Your task to perform on an android device: Open the stopwatch Image 0: 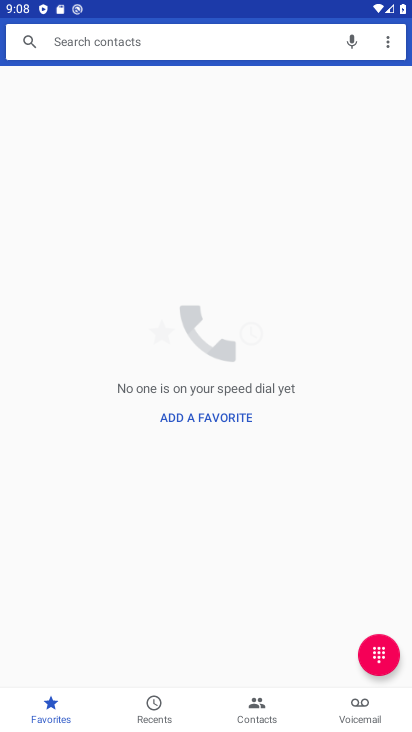
Step 0: press back button
Your task to perform on an android device: Open the stopwatch Image 1: 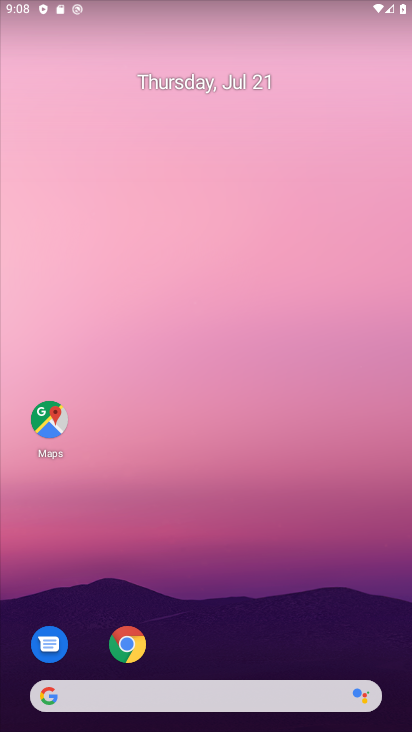
Step 1: drag from (275, 567) to (254, 256)
Your task to perform on an android device: Open the stopwatch Image 2: 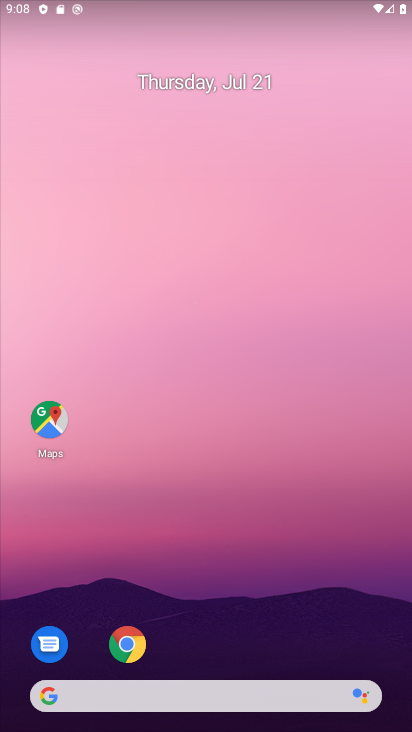
Step 2: drag from (217, 563) to (202, 115)
Your task to perform on an android device: Open the stopwatch Image 3: 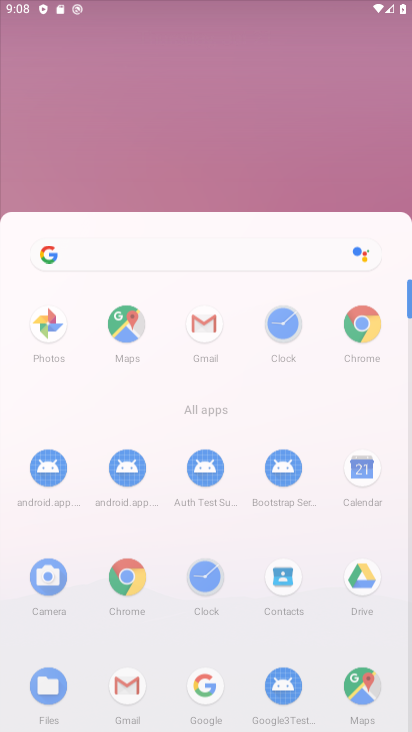
Step 3: drag from (194, 466) to (237, 195)
Your task to perform on an android device: Open the stopwatch Image 4: 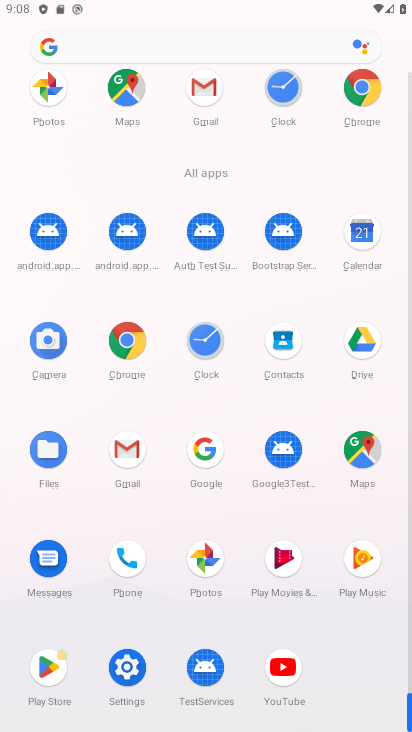
Step 4: click (212, 334)
Your task to perform on an android device: Open the stopwatch Image 5: 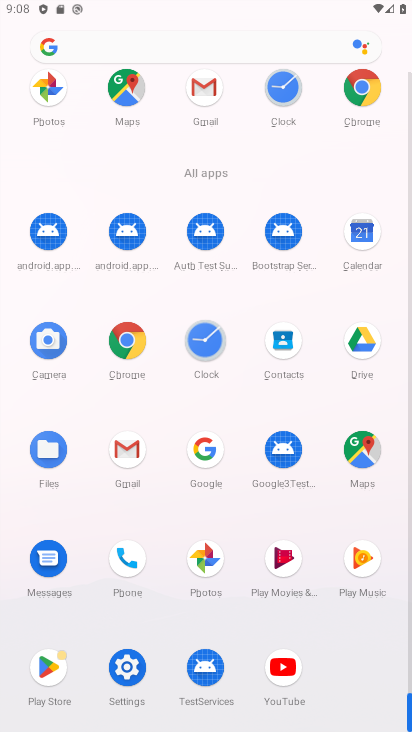
Step 5: click (192, 337)
Your task to perform on an android device: Open the stopwatch Image 6: 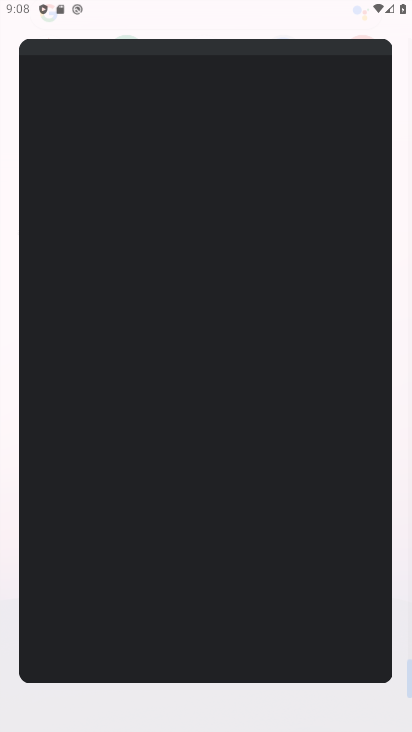
Step 6: click (207, 336)
Your task to perform on an android device: Open the stopwatch Image 7: 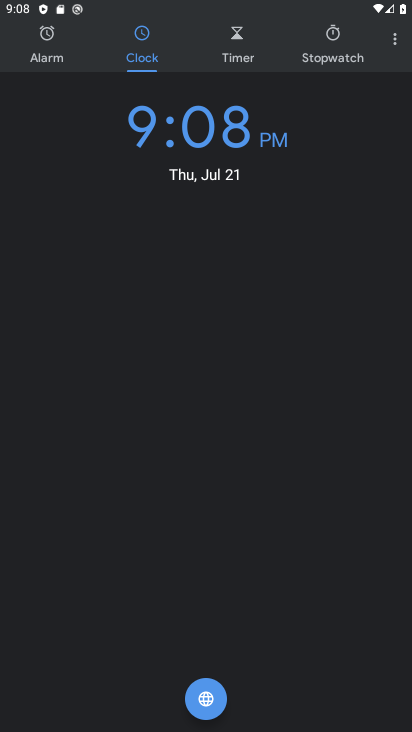
Step 7: click (340, 52)
Your task to perform on an android device: Open the stopwatch Image 8: 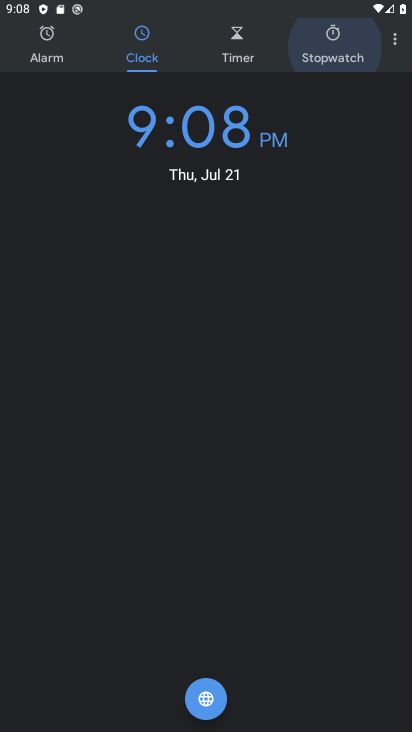
Step 8: click (336, 51)
Your task to perform on an android device: Open the stopwatch Image 9: 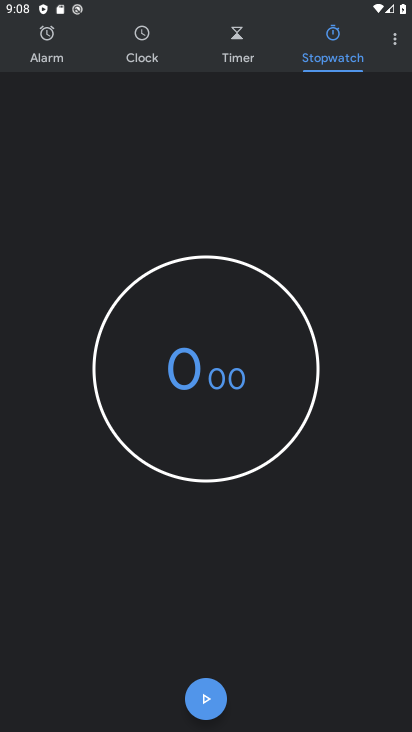
Step 9: click (212, 696)
Your task to perform on an android device: Open the stopwatch Image 10: 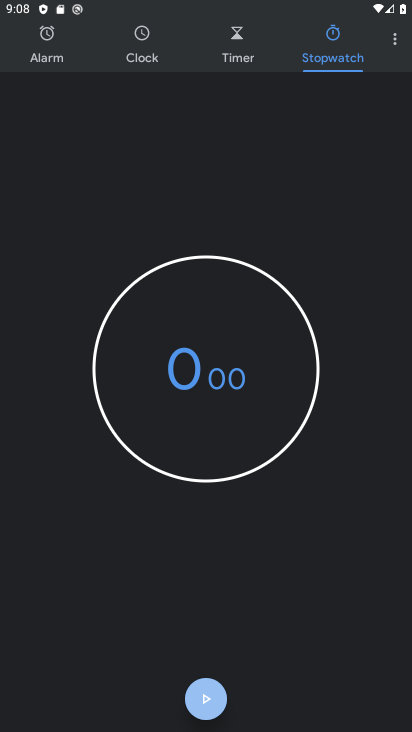
Step 10: click (208, 699)
Your task to perform on an android device: Open the stopwatch Image 11: 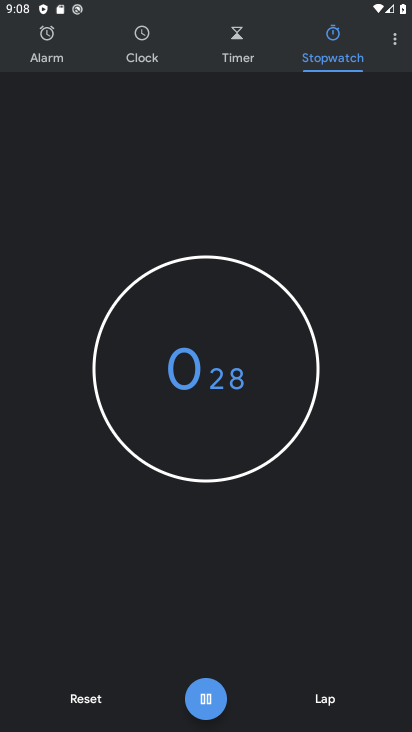
Step 11: click (203, 699)
Your task to perform on an android device: Open the stopwatch Image 12: 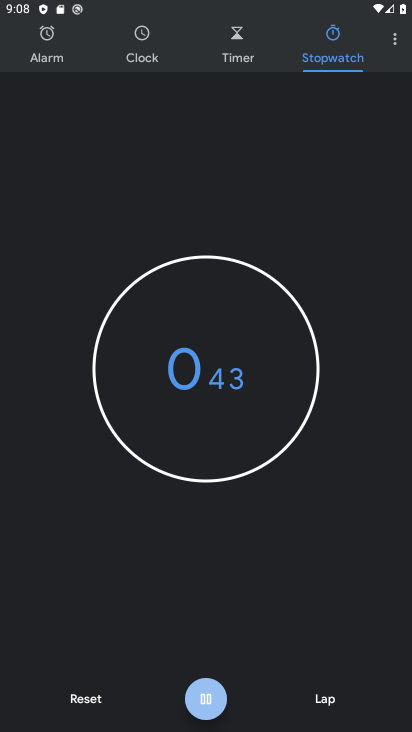
Step 12: click (200, 700)
Your task to perform on an android device: Open the stopwatch Image 13: 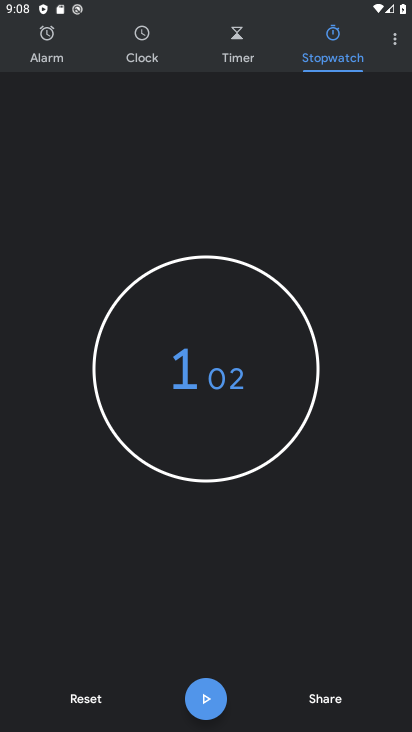
Step 13: click (218, 705)
Your task to perform on an android device: Open the stopwatch Image 14: 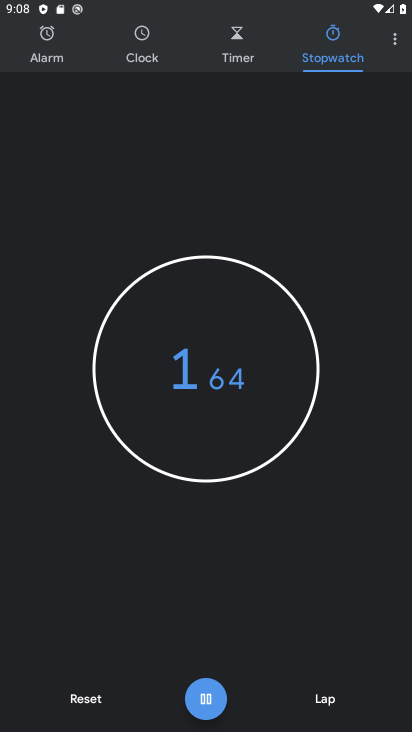
Step 14: click (211, 701)
Your task to perform on an android device: Open the stopwatch Image 15: 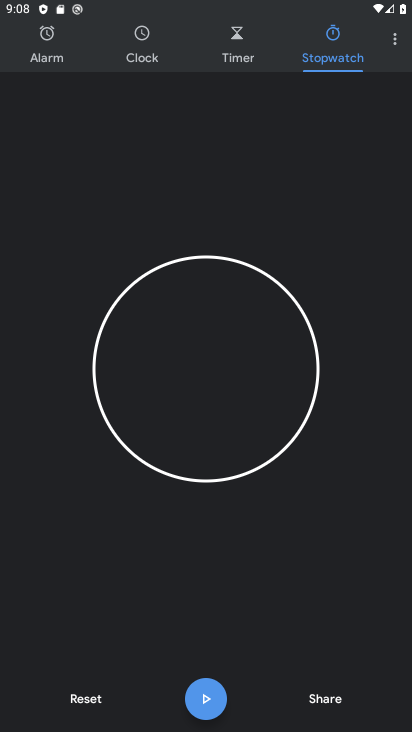
Step 15: click (211, 701)
Your task to perform on an android device: Open the stopwatch Image 16: 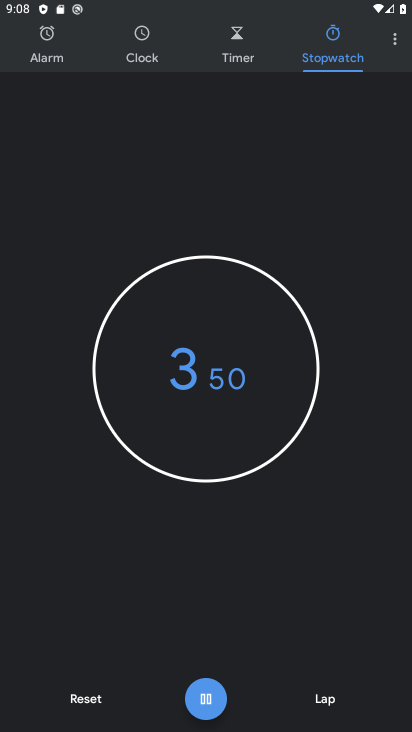
Step 16: click (211, 702)
Your task to perform on an android device: Open the stopwatch Image 17: 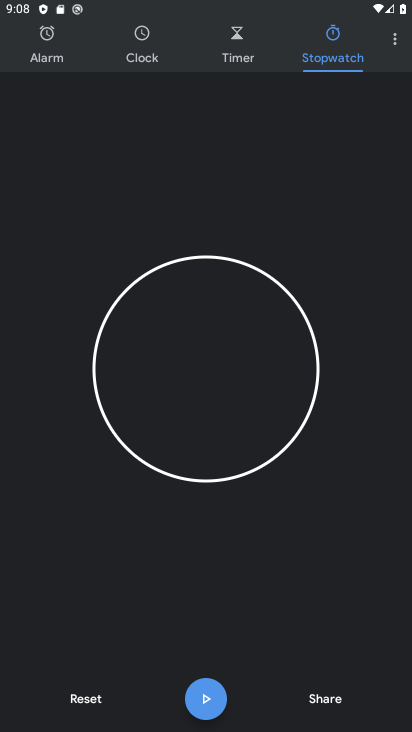
Step 17: task complete